Your task to perform on an android device: Do I have any events this weekend? Image 0: 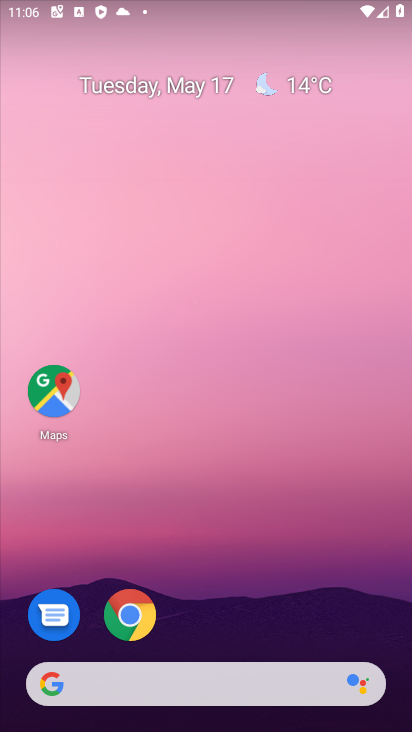
Step 0: drag from (360, 640) to (327, 127)
Your task to perform on an android device: Do I have any events this weekend? Image 1: 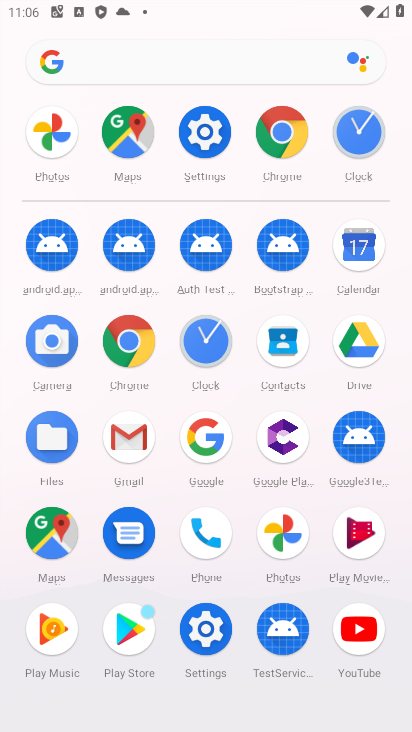
Step 1: click (358, 247)
Your task to perform on an android device: Do I have any events this weekend? Image 2: 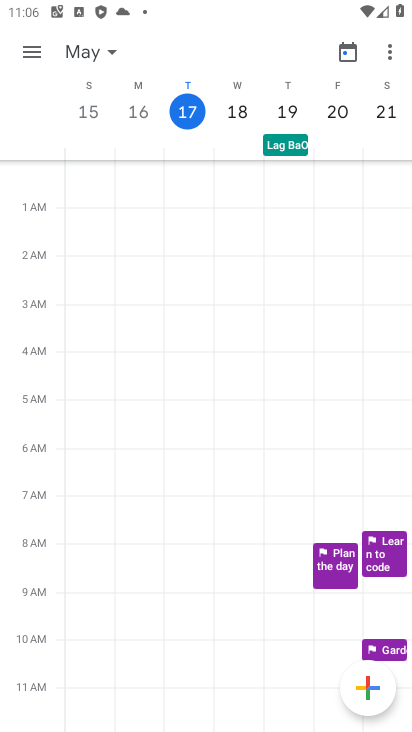
Step 2: task complete